Your task to perform on an android device: Open the Play Movies app and select the watchlist tab. Image 0: 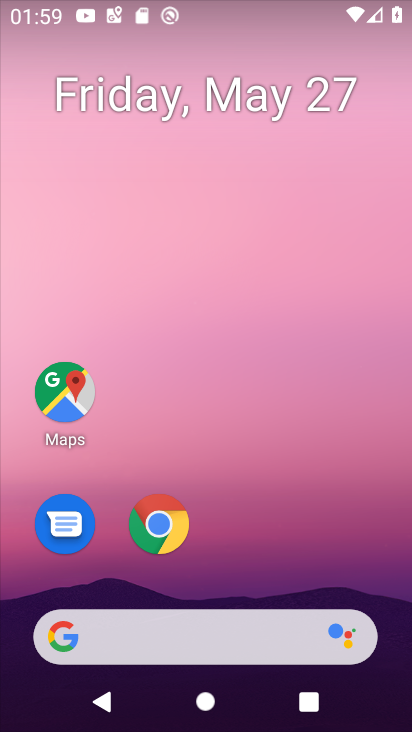
Step 0: drag from (251, 505) to (284, 6)
Your task to perform on an android device: Open the Play Movies app and select the watchlist tab. Image 1: 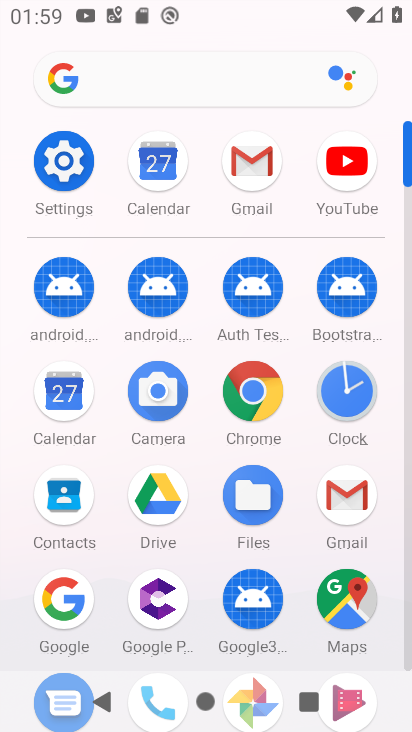
Step 1: drag from (309, 491) to (317, 252)
Your task to perform on an android device: Open the Play Movies app and select the watchlist tab. Image 2: 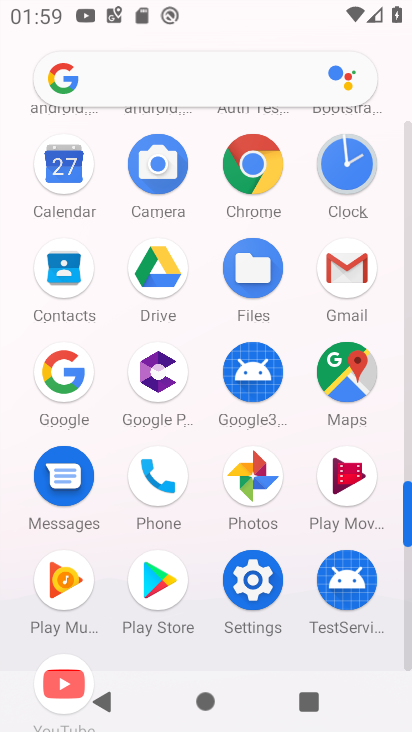
Step 2: click (346, 476)
Your task to perform on an android device: Open the Play Movies app and select the watchlist tab. Image 3: 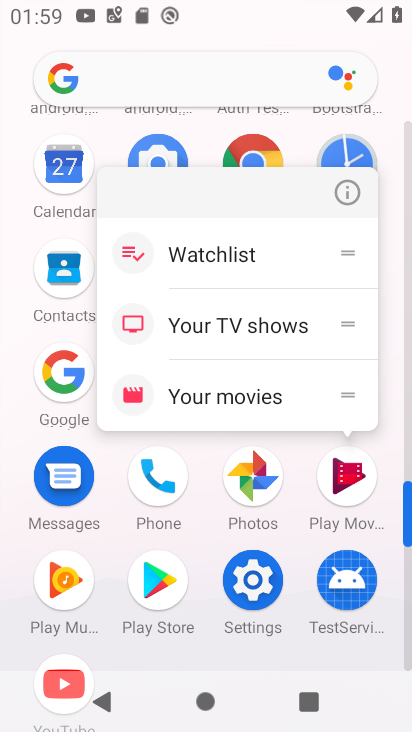
Step 3: click (346, 474)
Your task to perform on an android device: Open the Play Movies app and select the watchlist tab. Image 4: 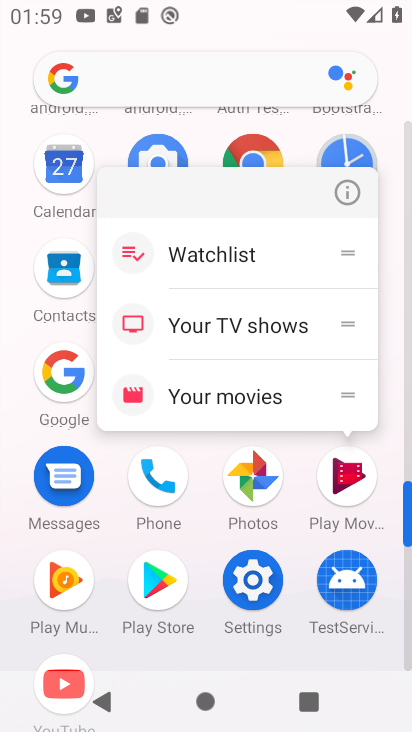
Step 4: click (362, 463)
Your task to perform on an android device: Open the Play Movies app and select the watchlist tab. Image 5: 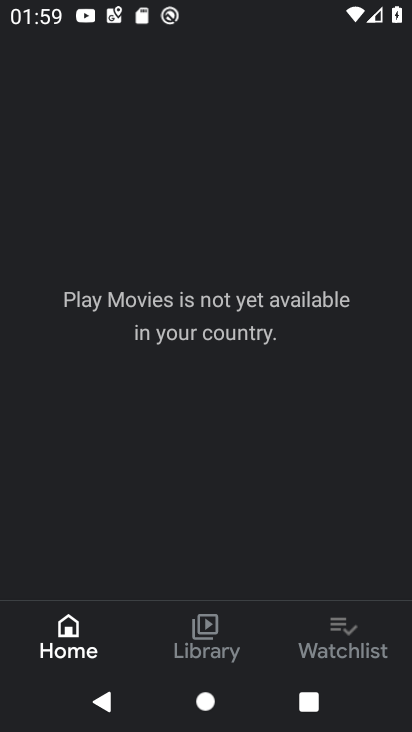
Step 5: click (338, 635)
Your task to perform on an android device: Open the Play Movies app and select the watchlist tab. Image 6: 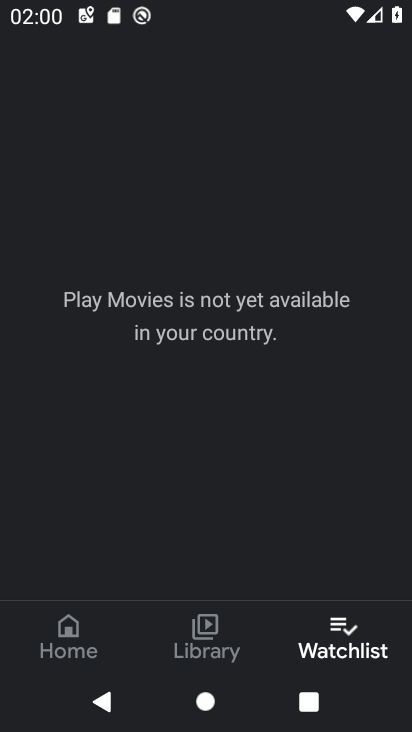
Step 6: task complete